Your task to perform on an android device: Open ESPN.com Image 0: 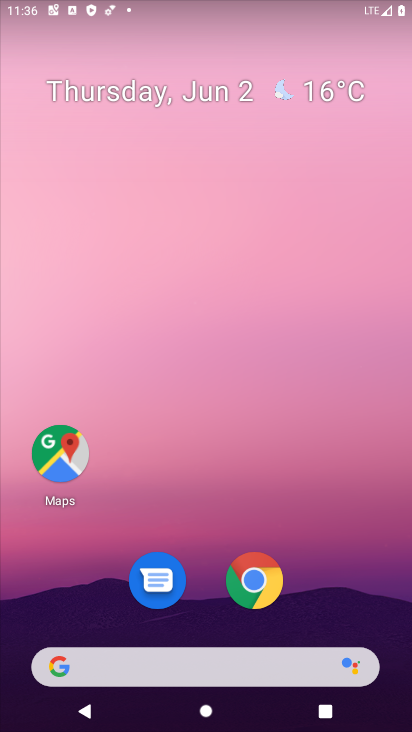
Step 0: drag from (184, 635) to (142, 38)
Your task to perform on an android device: Open ESPN.com Image 1: 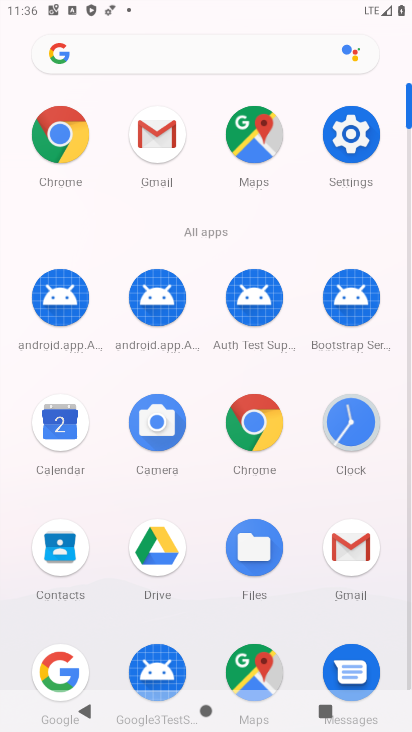
Step 1: click (61, 171)
Your task to perform on an android device: Open ESPN.com Image 2: 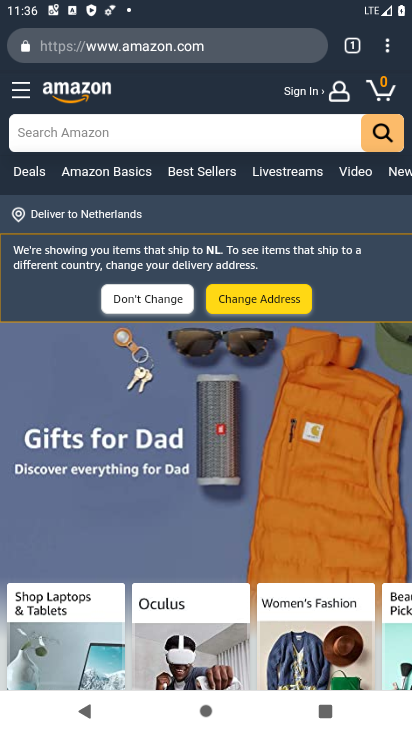
Step 2: click (231, 35)
Your task to perform on an android device: Open ESPN.com Image 3: 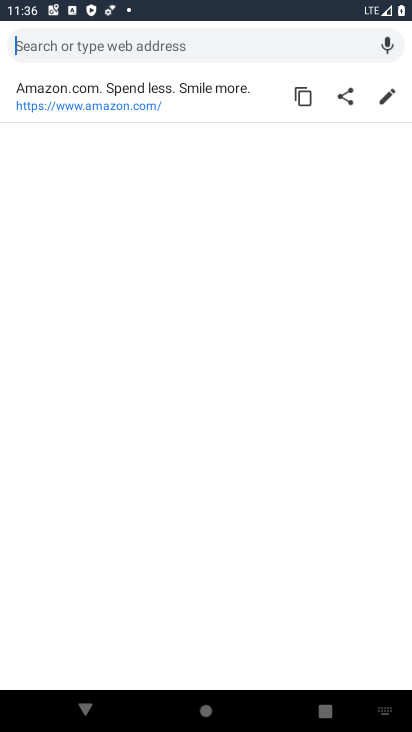
Step 3: type "espn"
Your task to perform on an android device: Open ESPN.com Image 4: 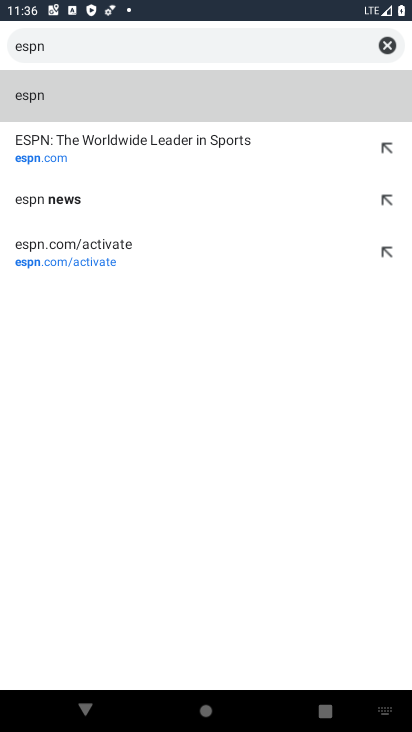
Step 4: click (157, 155)
Your task to perform on an android device: Open ESPN.com Image 5: 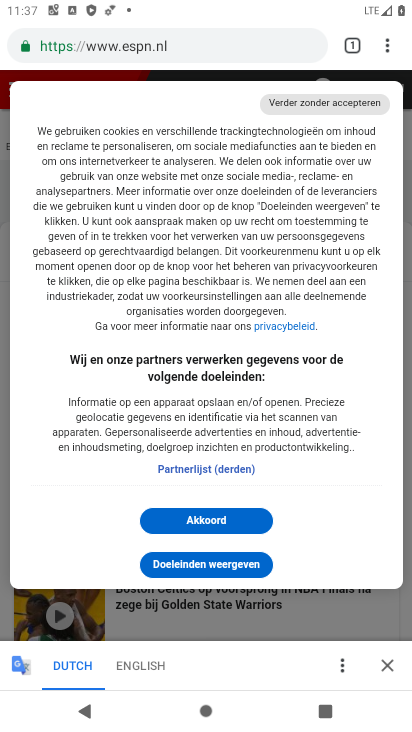
Step 5: task complete